Your task to perform on an android device: Open Youtube and go to "Your channel" Image 0: 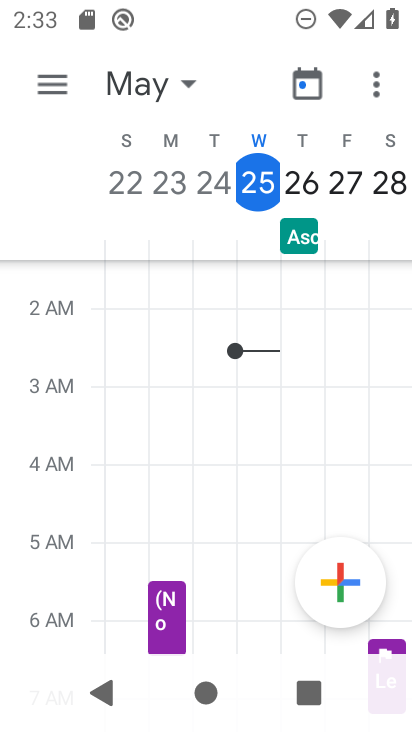
Step 0: press home button
Your task to perform on an android device: Open Youtube and go to "Your channel" Image 1: 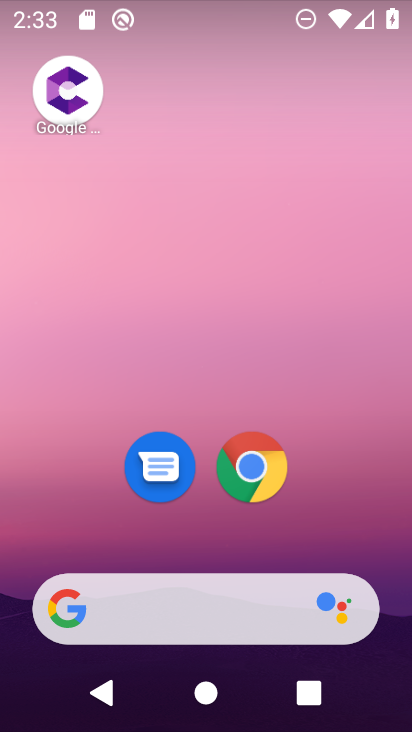
Step 1: drag from (320, 539) to (363, 173)
Your task to perform on an android device: Open Youtube and go to "Your channel" Image 2: 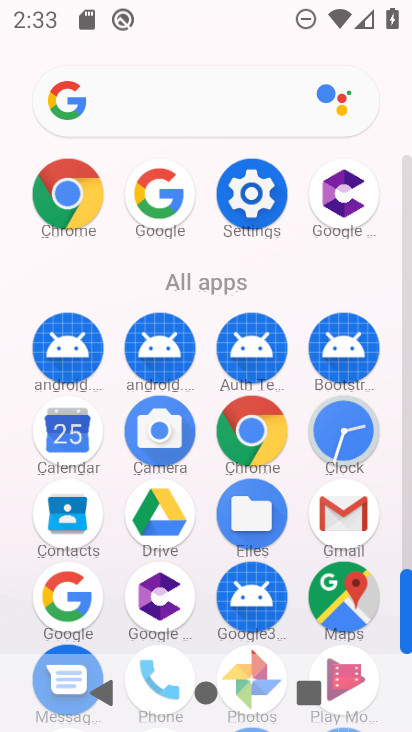
Step 2: drag from (296, 571) to (296, 284)
Your task to perform on an android device: Open Youtube and go to "Your channel" Image 3: 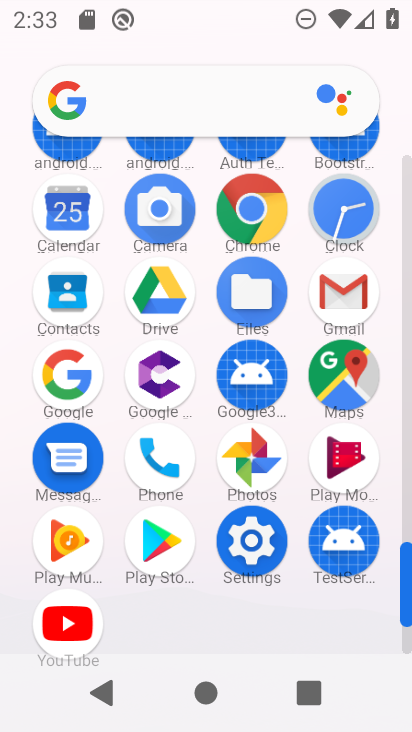
Step 3: click (57, 628)
Your task to perform on an android device: Open Youtube and go to "Your channel" Image 4: 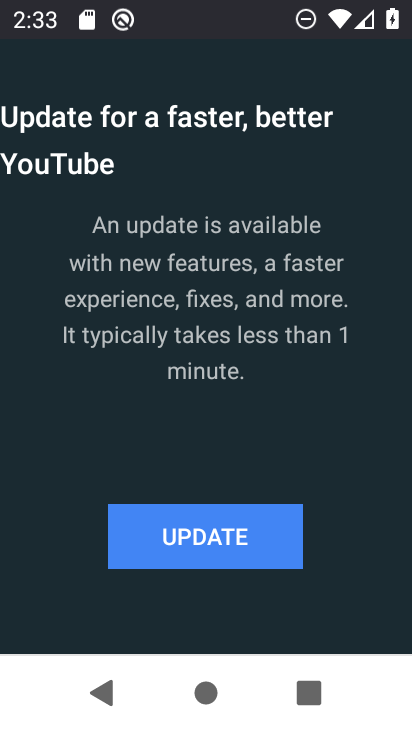
Step 4: click (236, 549)
Your task to perform on an android device: Open Youtube and go to "Your channel" Image 5: 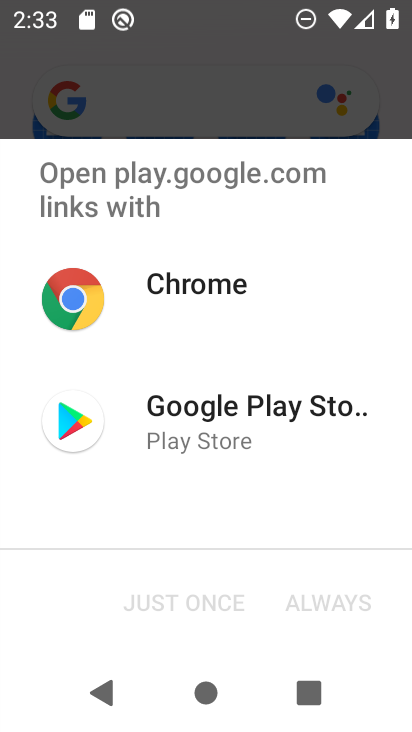
Step 5: press back button
Your task to perform on an android device: Open Youtube and go to "Your channel" Image 6: 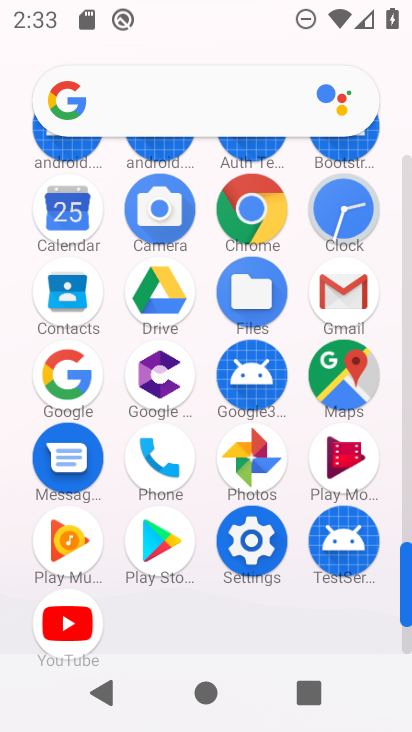
Step 6: click (74, 629)
Your task to perform on an android device: Open Youtube and go to "Your channel" Image 7: 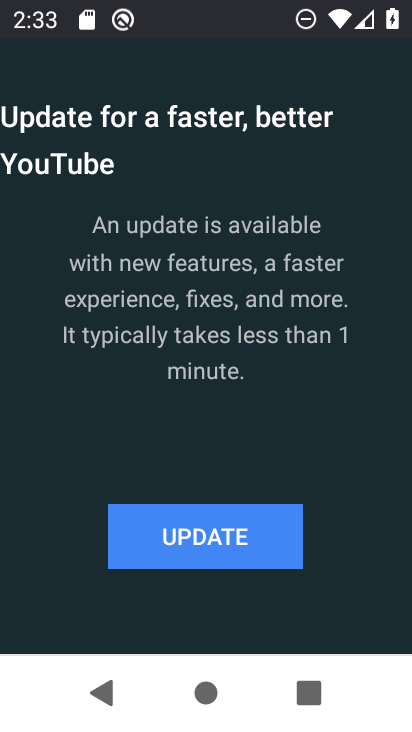
Step 7: task complete